Your task to perform on an android device: find photos in the google photos app Image 0: 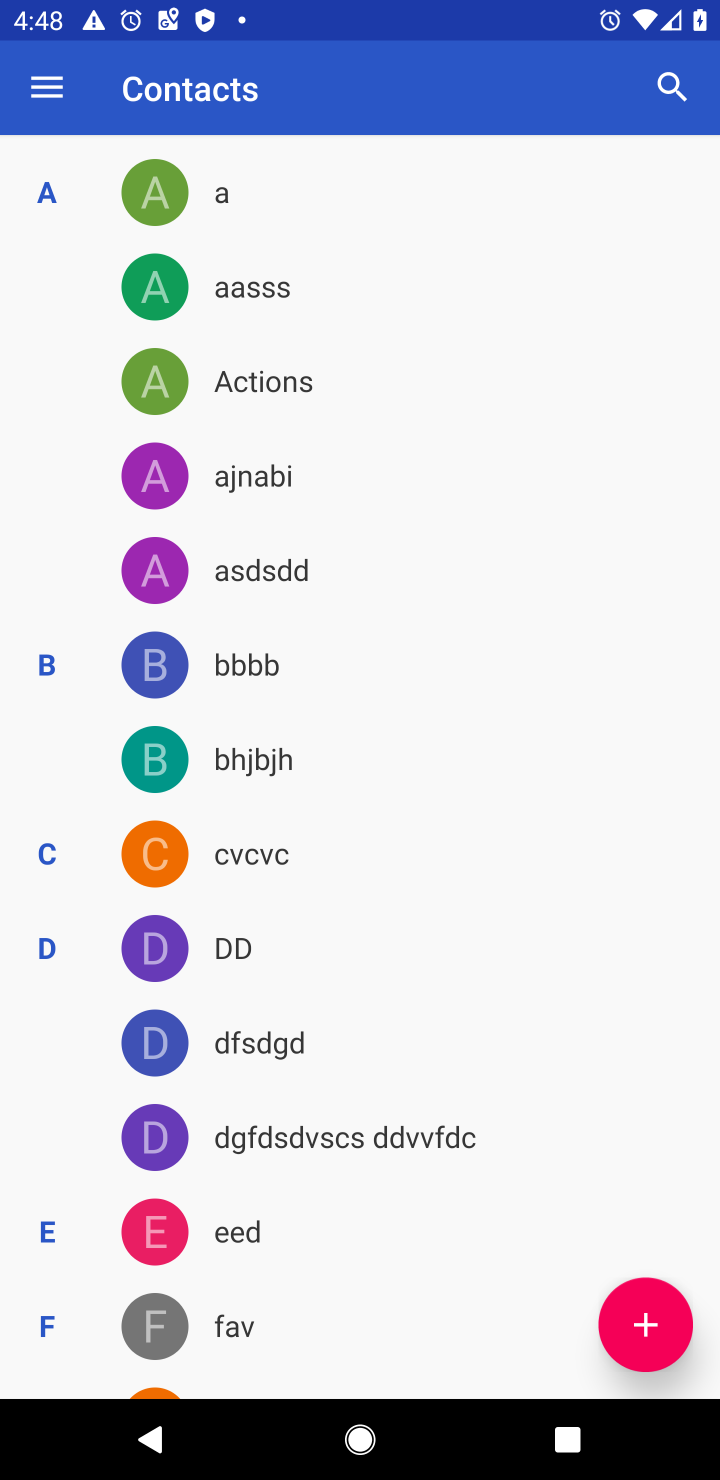
Step 0: press home button
Your task to perform on an android device: find photos in the google photos app Image 1: 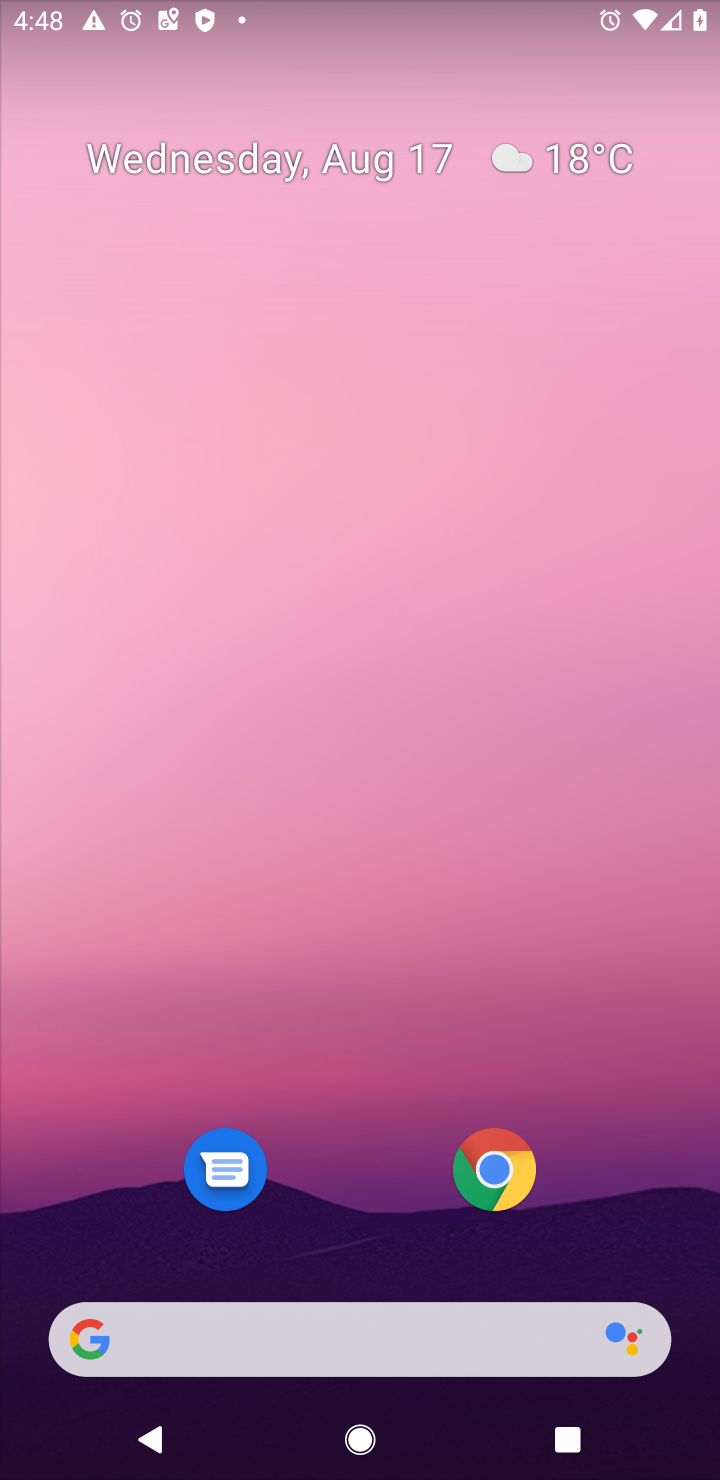
Step 1: drag from (328, 1020) to (443, 264)
Your task to perform on an android device: find photos in the google photos app Image 2: 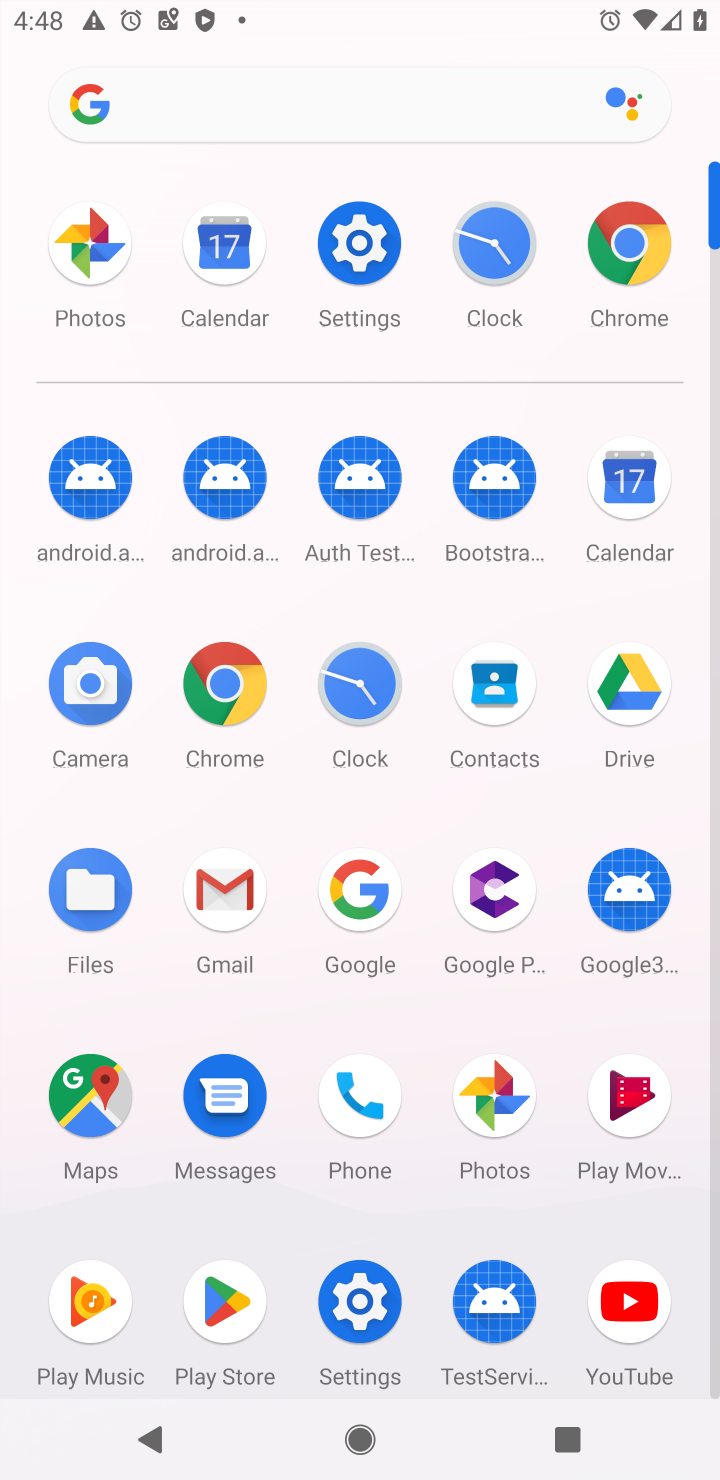
Step 2: click (484, 1099)
Your task to perform on an android device: find photos in the google photos app Image 3: 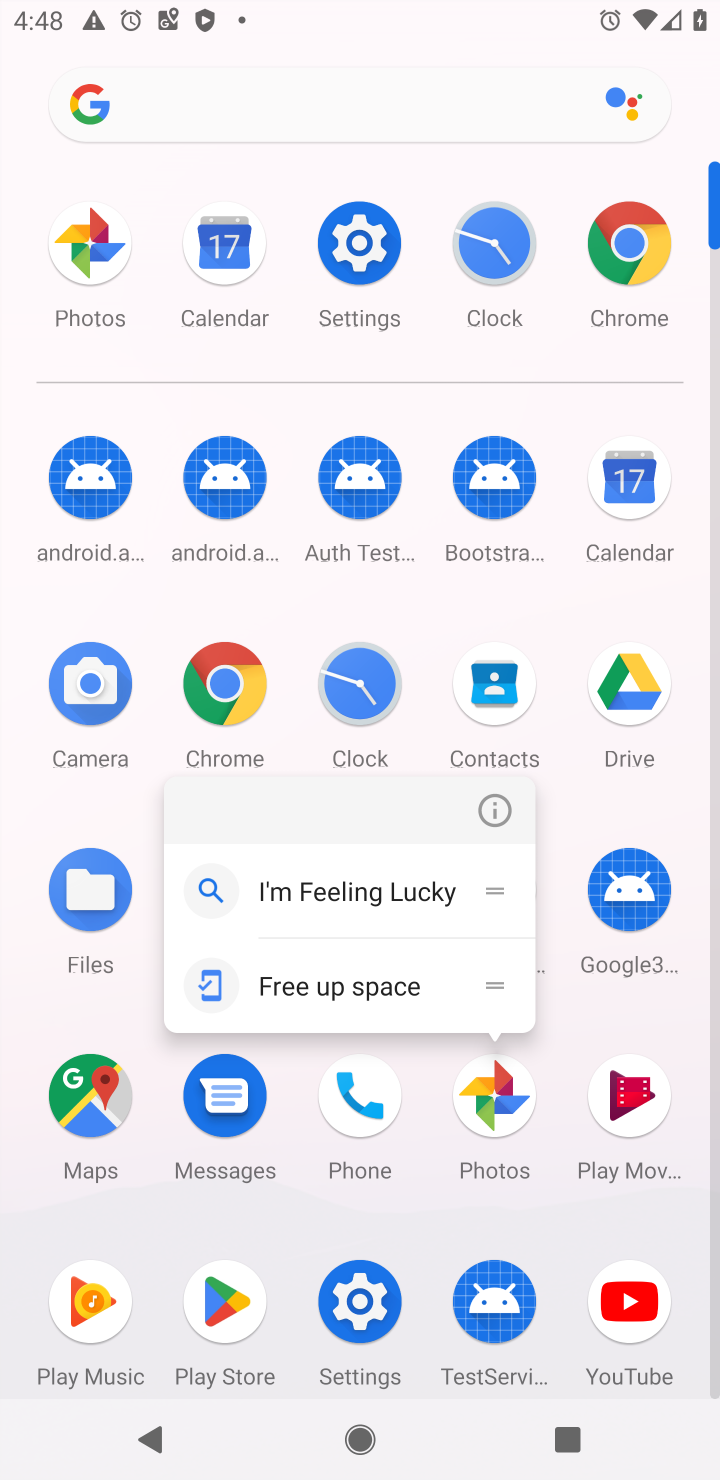
Step 3: click (500, 1088)
Your task to perform on an android device: find photos in the google photos app Image 4: 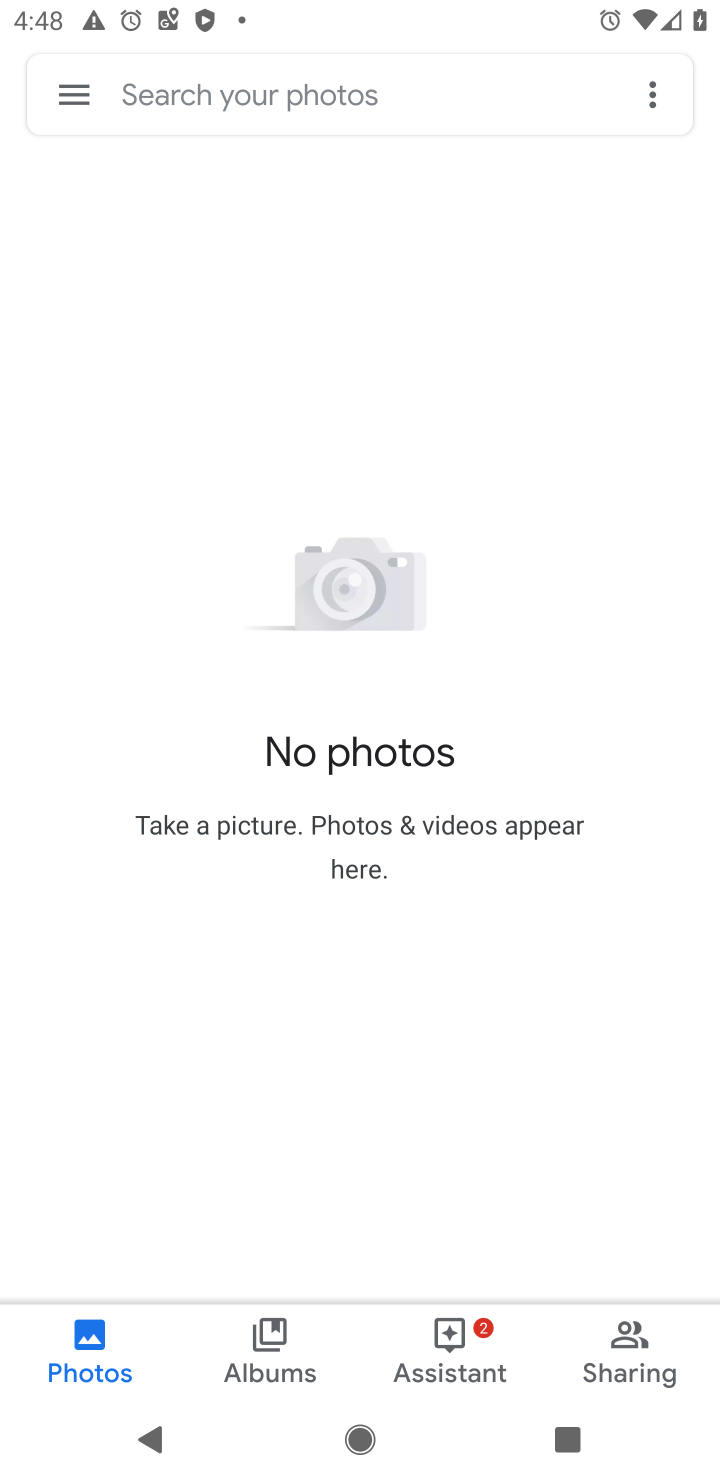
Step 4: click (82, 1351)
Your task to perform on an android device: find photos in the google photos app Image 5: 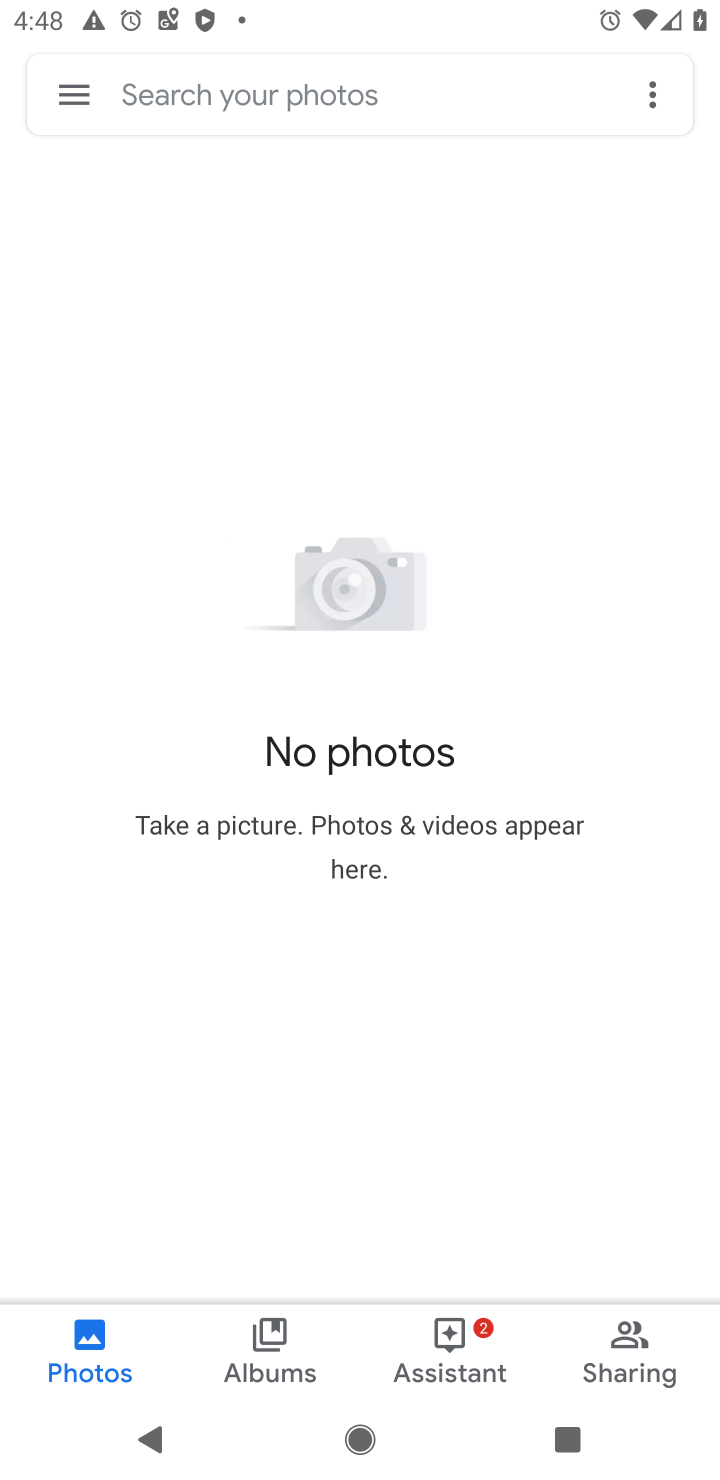
Step 5: task complete